Your task to perform on an android device: Go to Google maps Image 0: 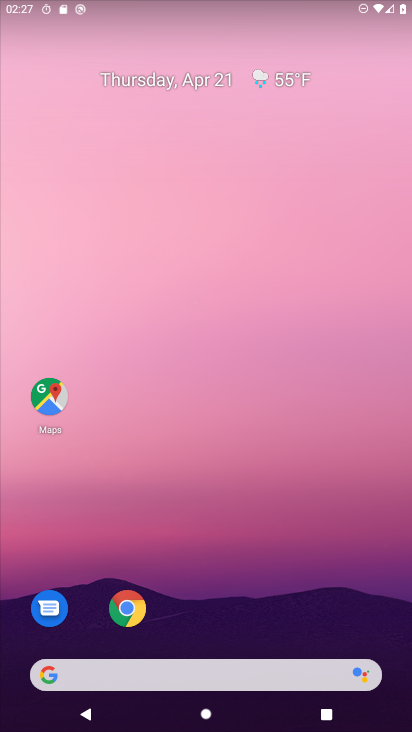
Step 0: press home button
Your task to perform on an android device: Go to Google maps Image 1: 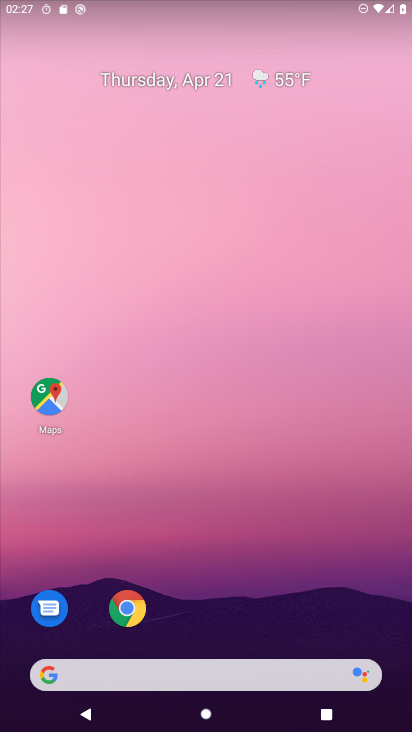
Step 1: click (51, 401)
Your task to perform on an android device: Go to Google maps Image 2: 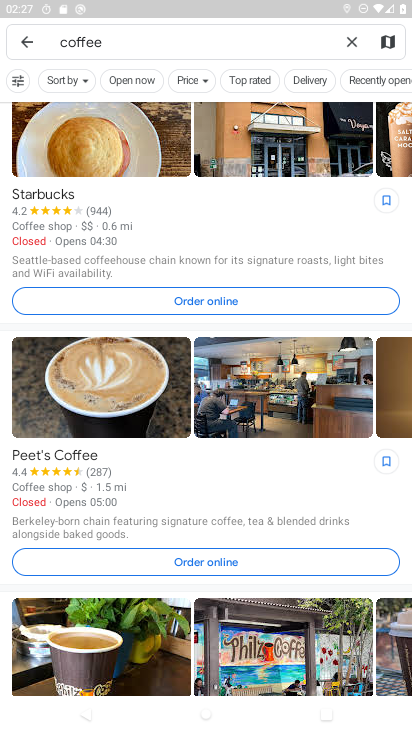
Step 2: click (27, 43)
Your task to perform on an android device: Go to Google maps Image 3: 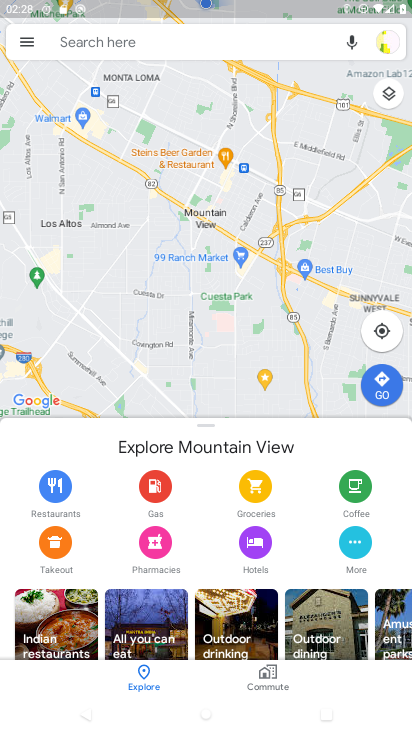
Step 3: task complete